Your task to perform on an android device: Open eBay Image 0: 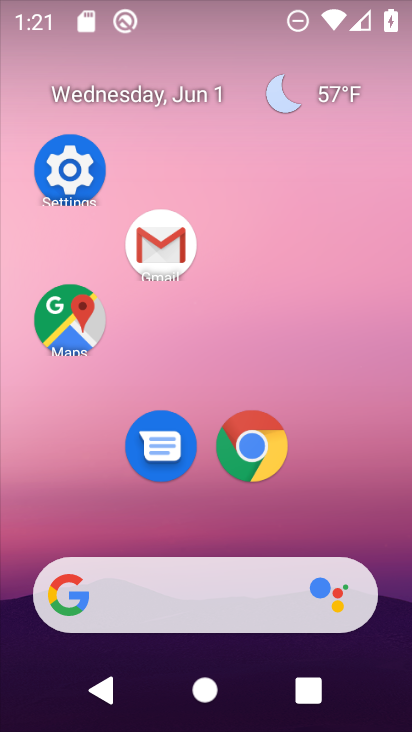
Step 0: click (256, 464)
Your task to perform on an android device: Open eBay Image 1: 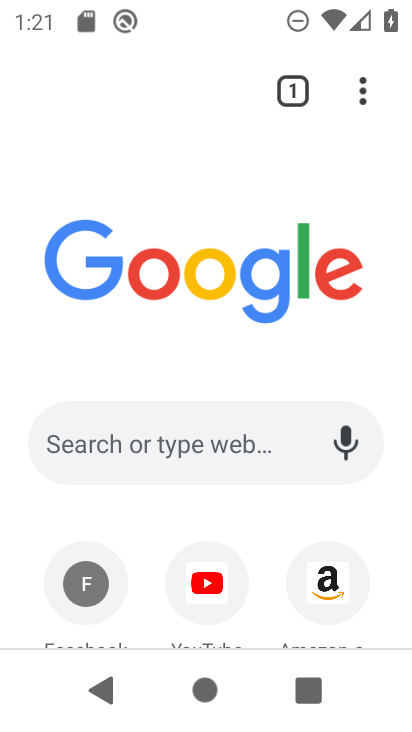
Step 1: click (253, 464)
Your task to perform on an android device: Open eBay Image 2: 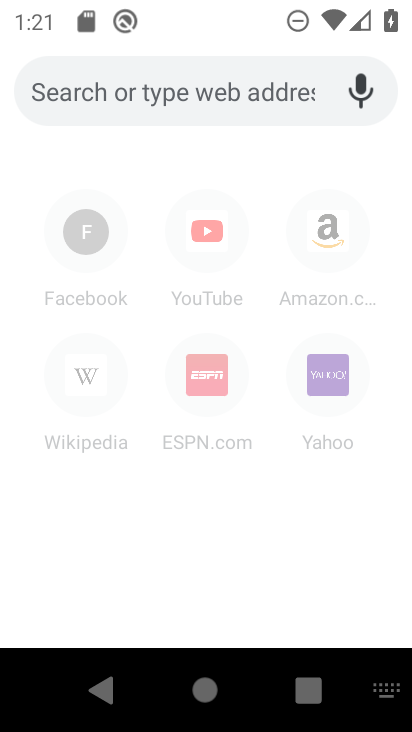
Step 2: type "ebay"
Your task to perform on an android device: Open eBay Image 3: 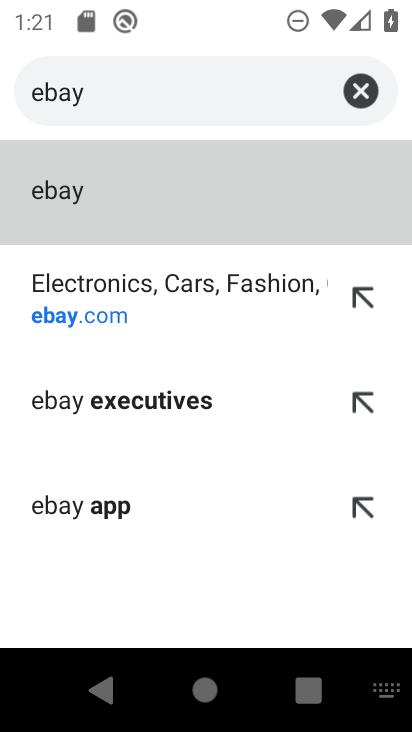
Step 3: click (125, 301)
Your task to perform on an android device: Open eBay Image 4: 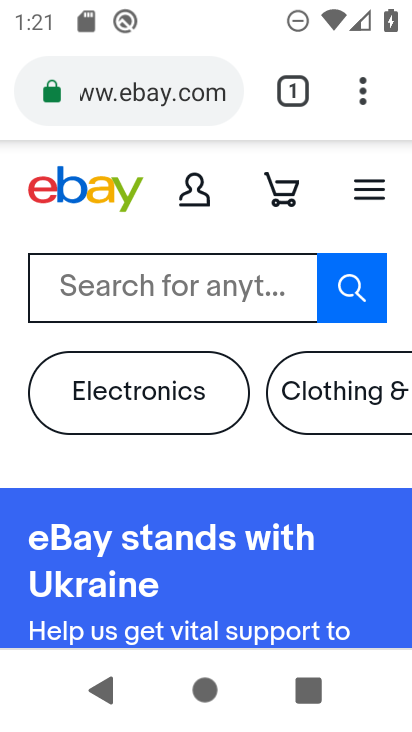
Step 4: task complete